Your task to perform on an android device: turn on showing notifications on the lock screen Image 0: 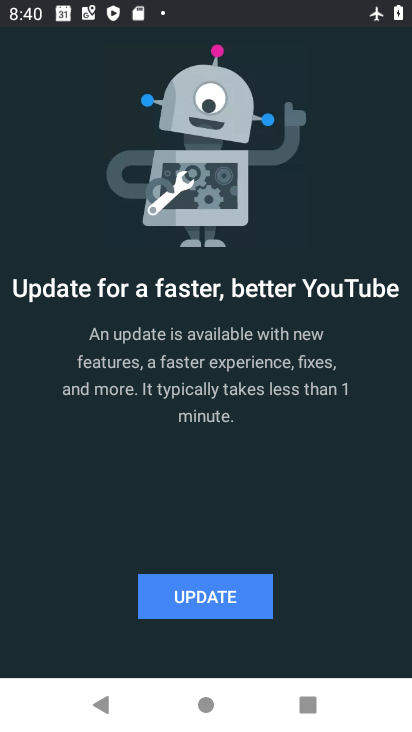
Step 0: press home button
Your task to perform on an android device: turn on showing notifications on the lock screen Image 1: 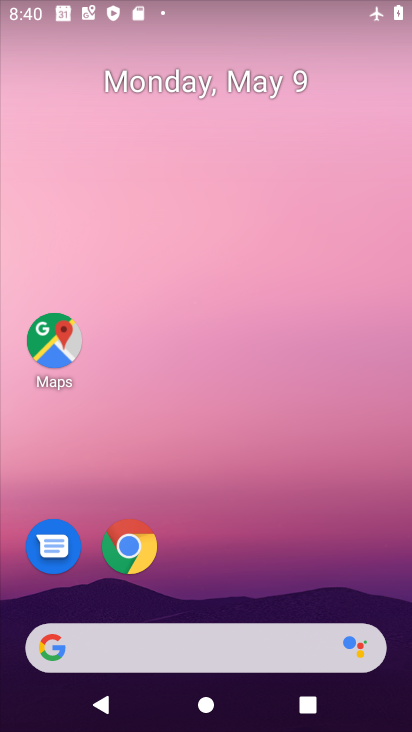
Step 1: drag from (287, 415) to (376, 4)
Your task to perform on an android device: turn on showing notifications on the lock screen Image 2: 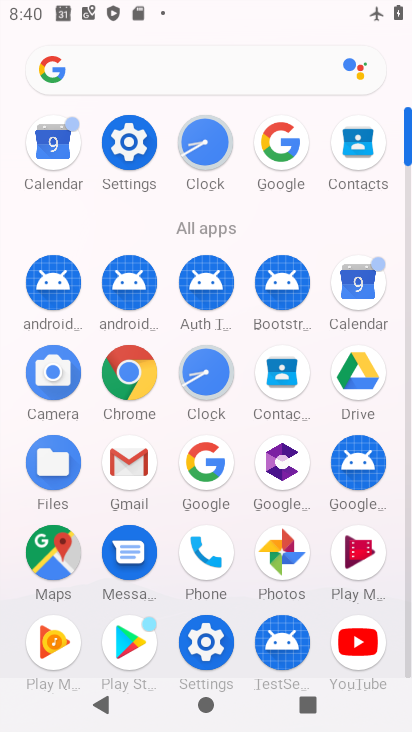
Step 2: click (134, 149)
Your task to perform on an android device: turn on showing notifications on the lock screen Image 3: 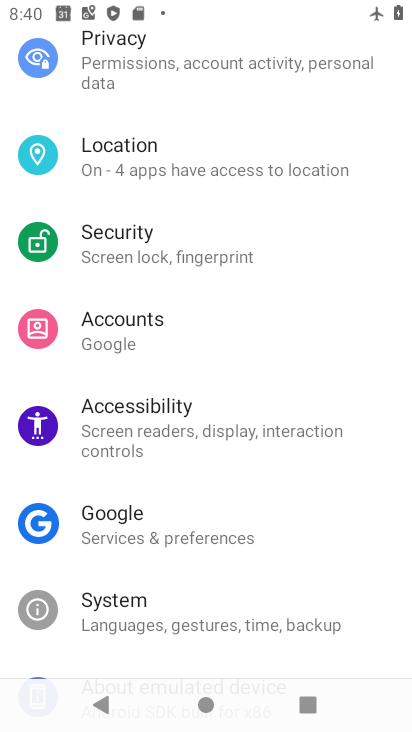
Step 3: drag from (309, 122) to (326, 658)
Your task to perform on an android device: turn on showing notifications on the lock screen Image 4: 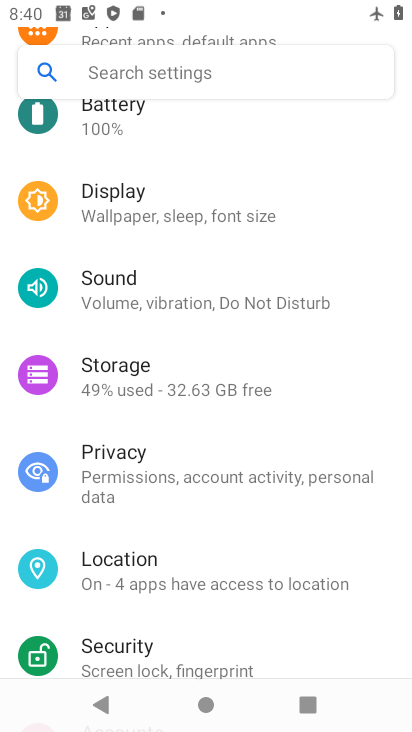
Step 4: drag from (297, 176) to (289, 618)
Your task to perform on an android device: turn on showing notifications on the lock screen Image 5: 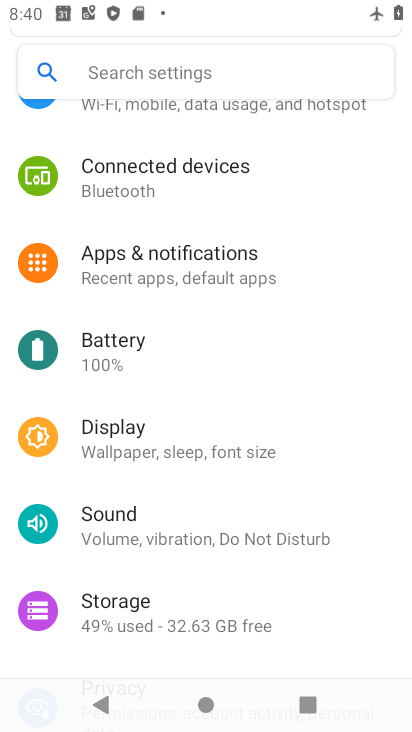
Step 5: click (207, 272)
Your task to perform on an android device: turn on showing notifications on the lock screen Image 6: 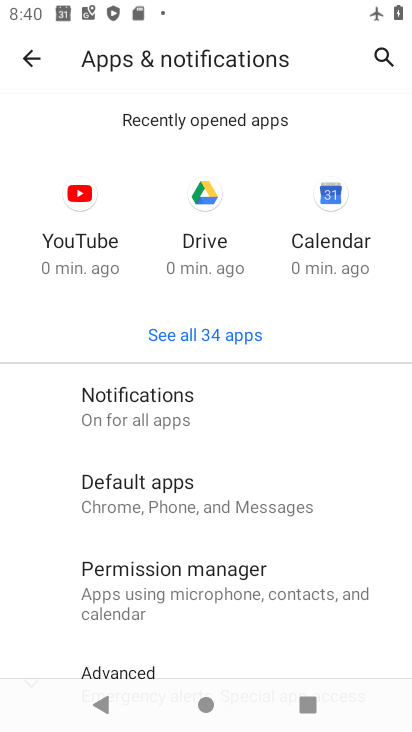
Step 6: click (153, 406)
Your task to perform on an android device: turn on showing notifications on the lock screen Image 7: 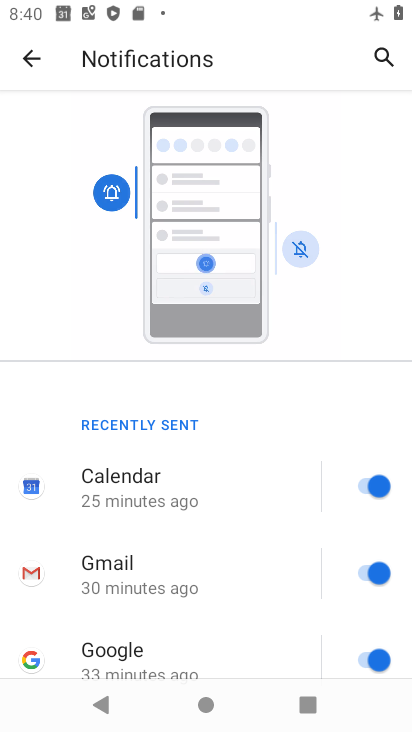
Step 7: drag from (233, 657) to (158, 0)
Your task to perform on an android device: turn on showing notifications on the lock screen Image 8: 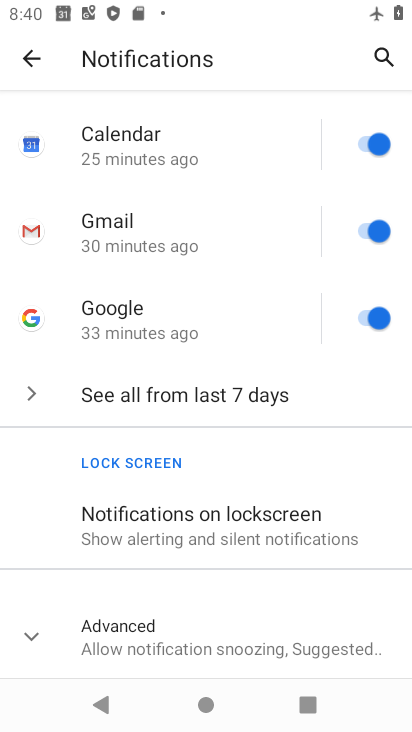
Step 8: click (225, 529)
Your task to perform on an android device: turn on showing notifications on the lock screen Image 9: 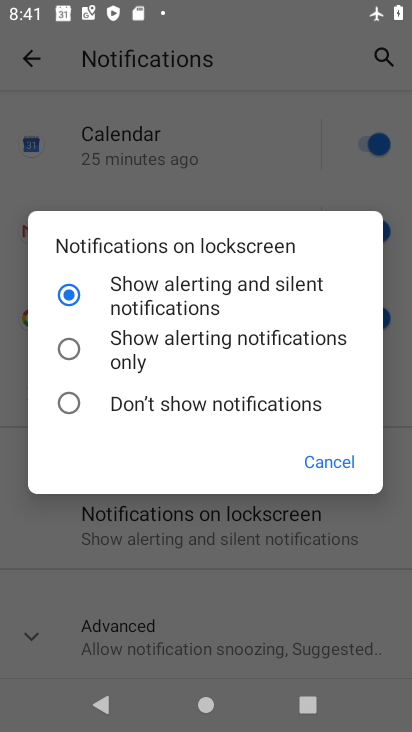
Step 9: task complete